Your task to perform on an android device: add a contact in the contacts app Image 0: 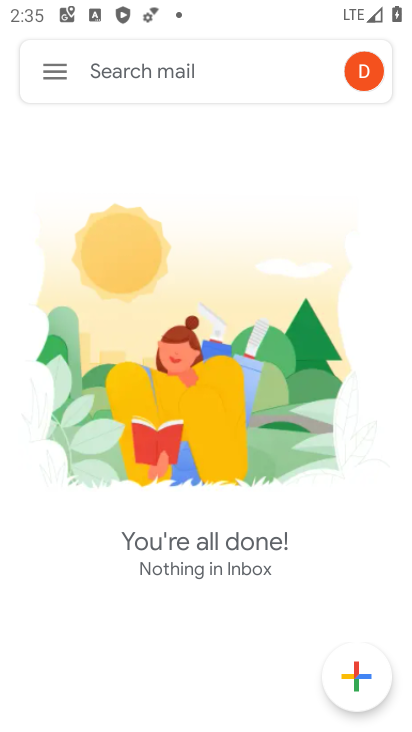
Step 0: click (232, 511)
Your task to perform on an android device: add a contact in the contacts app Image 1: 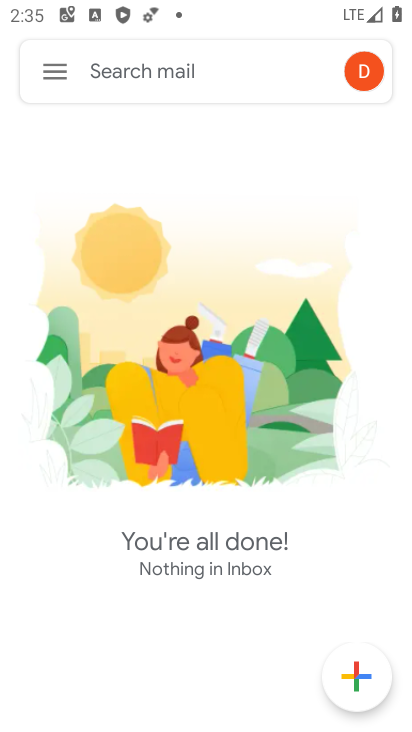
Step 1: click (197, 518)
Your task to perform on an android device: add a contact in the contacts app Image 2: 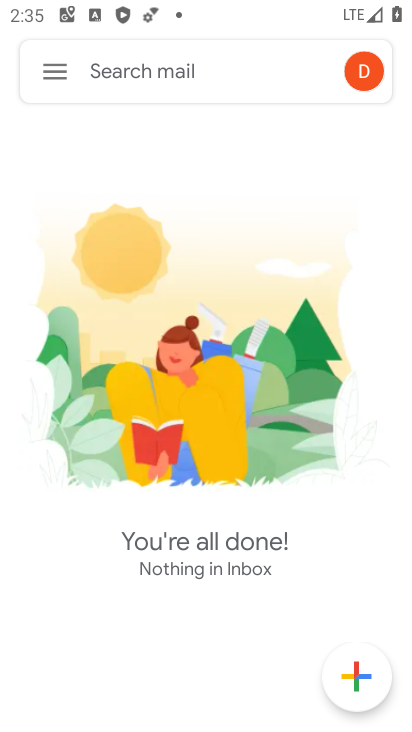
Step 2: press home button
Your task to perform on an android device: add a contact in the contacts app Image 3: 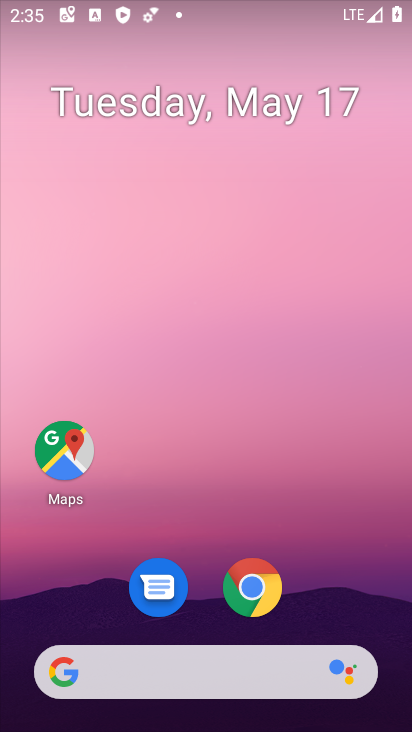
Step 3: drag from (185, 620) to (190, 13)
Your task to perform on an android device: add a contact in the contacts app Image 4: 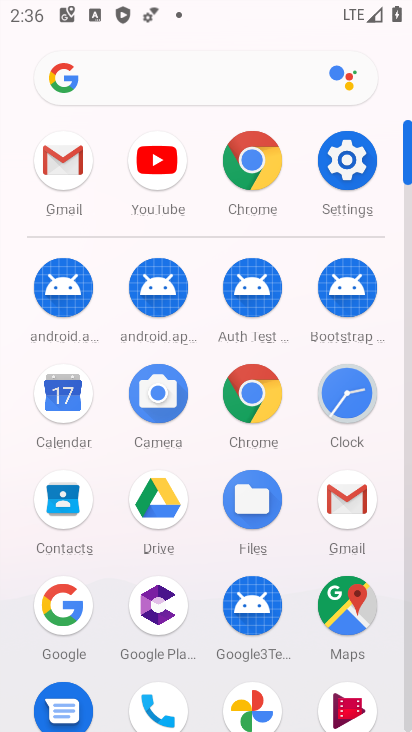
Step 4: click (66, 503)
Your task to perform on an android device: add a contact in the contacts app Image 5: 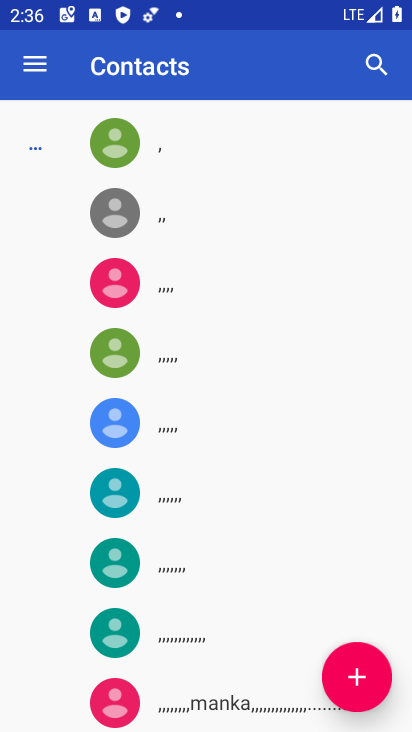
Step 5: drag from (222, 601) to (286, 212)
Your task to perform on an android device: add a contact in the contacts app Image 6: 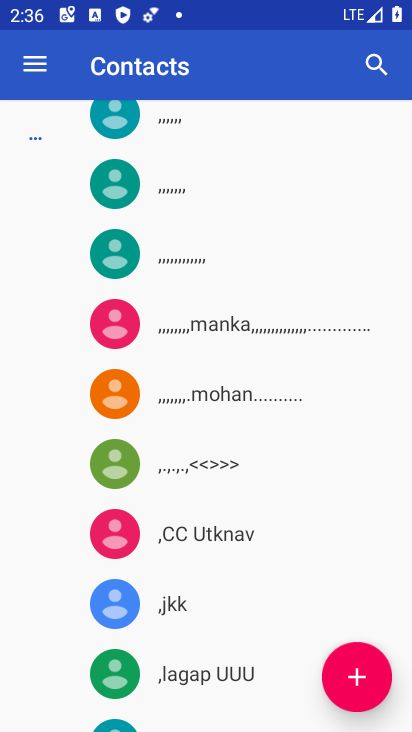
Step 6: click (33, 32)
Your task to perform on an android device: add a contact in the contacts app Image 7: 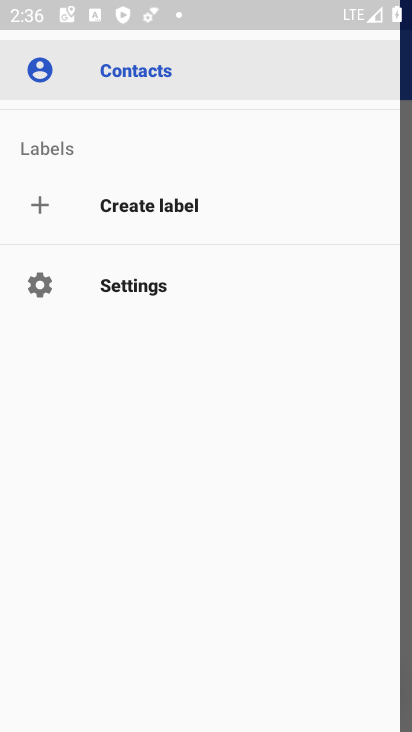
Step 7: press back button
Your task to perform on an android device: add a contact in the contacts app Image 8: 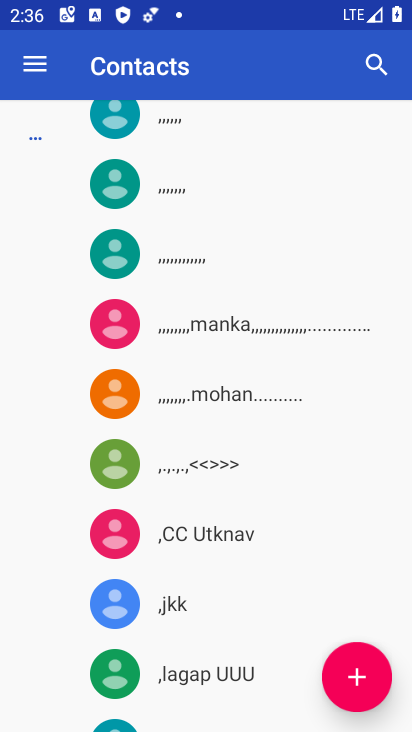
Step 8: click (358, 656)
Your task to perform on an android device: add a contact in the contacts app Image 9: 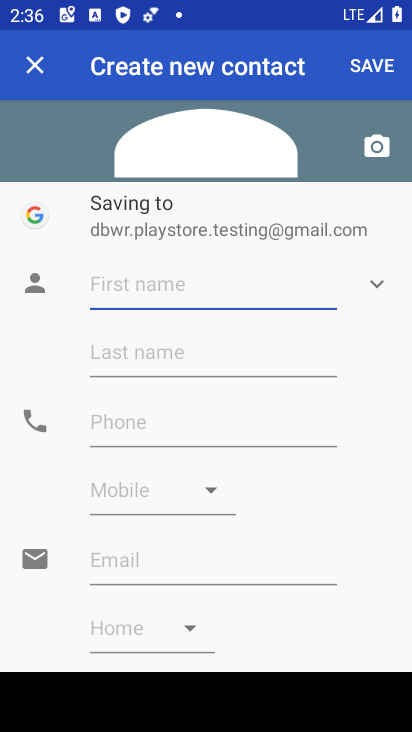
Step 9: click (146, 283)
Your task to perform on an android device: add a contact in the contacts app Image 10: 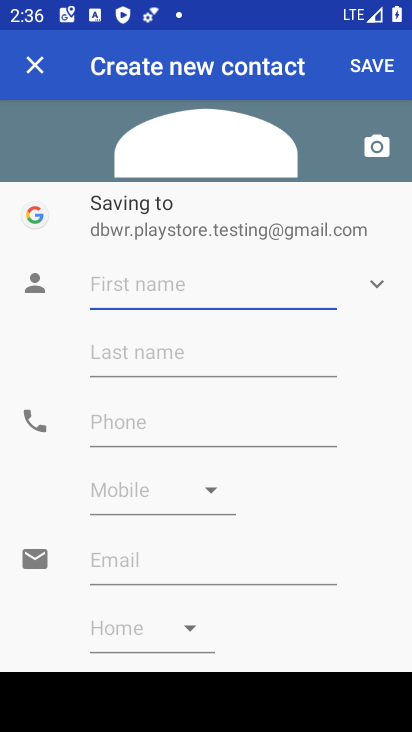
Step 10: type "ajx,az"
Your task to perform on an android device: add a contact in the contacts app Image 11: 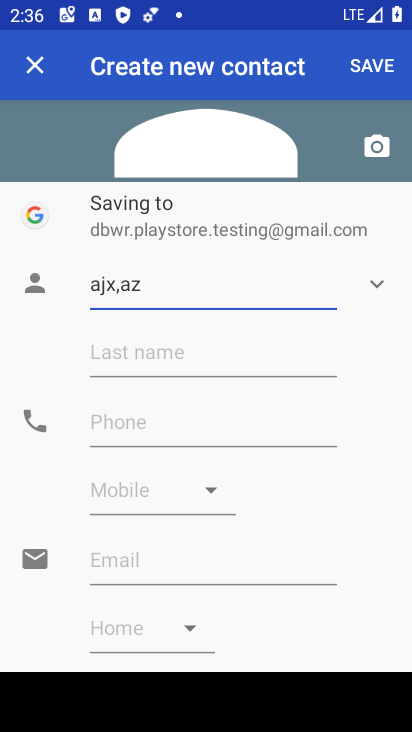
Step 11: click (403, 54)
Your task to perform on an android device: add a contact in the contacts app Image 12: 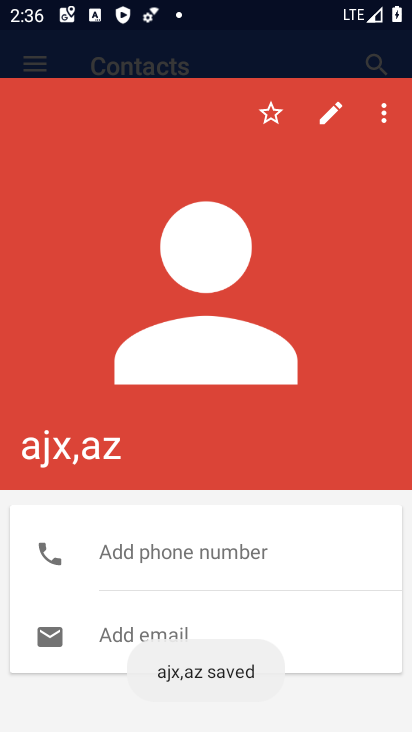
Step 12: task complete